Your task to perform on an android device: Open Wikipedia Image 0: 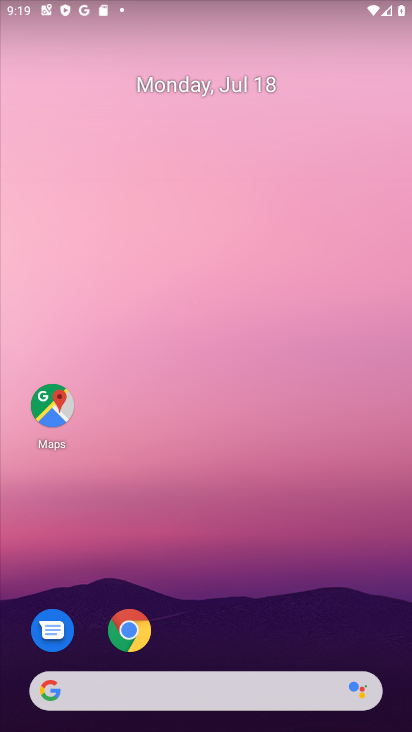
Step 0: drag from (391, 651) to (253, 32)
Your task to perform on an android device: Open Wikipedia Image 1: 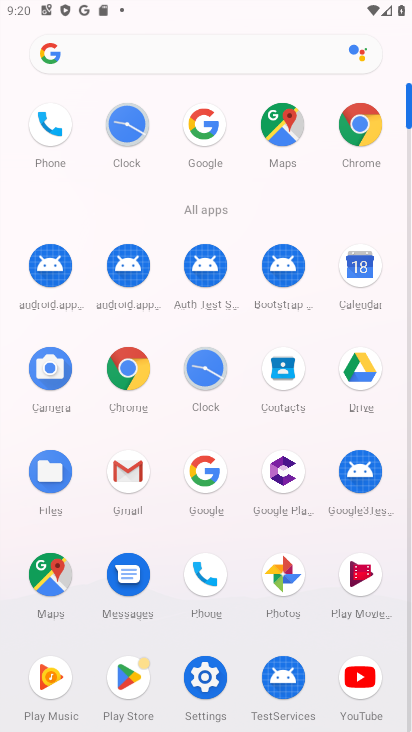
Step 1: click (195, 481)
Your task to perform on an android device: Open Wikipedia Image 2: 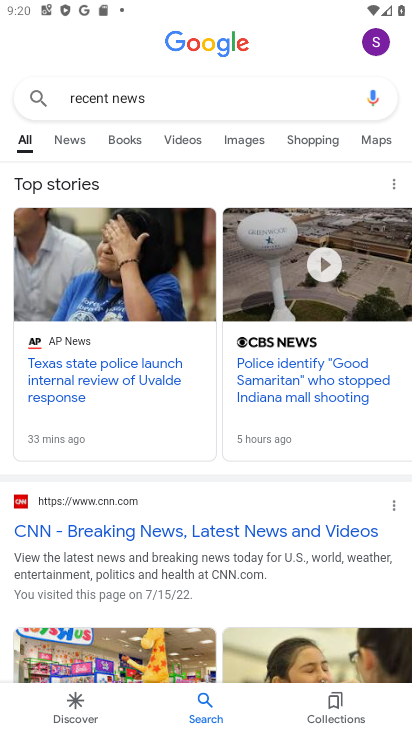
Step 2: click (268, 99)
Your task to perform on an android device: Open Wikipedia Image 3: 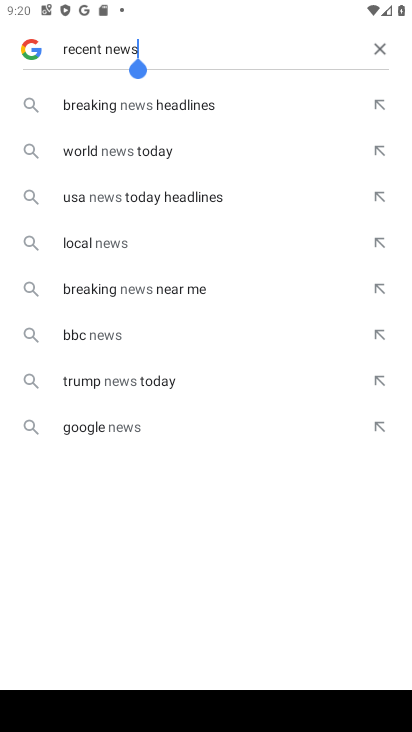
Step 3: click (382, 51)
Your task to perform on an android device: Open Wikipedia Image 4: 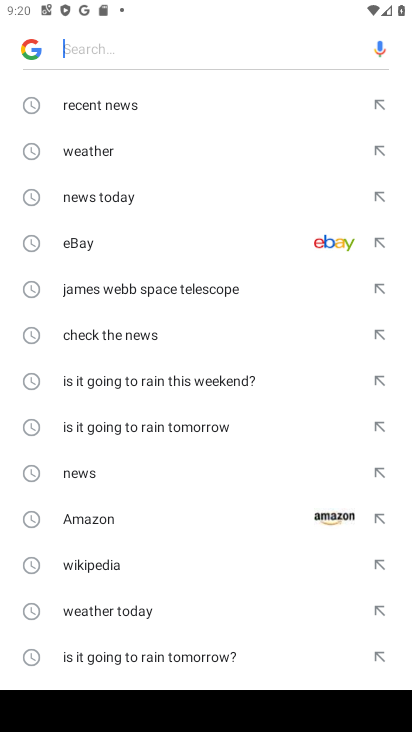
Step 4: click (104, 563)
Your task to perform on an android device: Open Wikipedia Image 5: 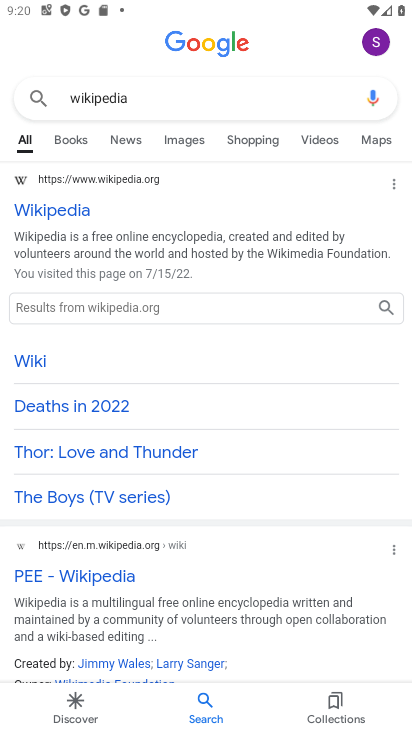
Step 5: task complete